Your task to perform on an android device: change the clock display to analog Image 0: 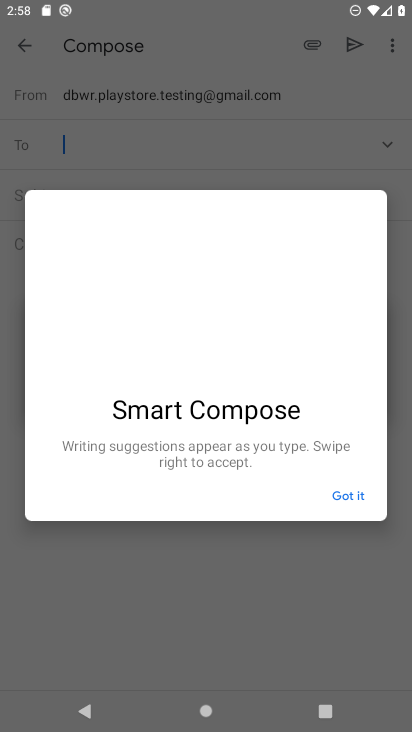
Step 0: press home button
Your task to perform on an android device: change the clock display to analog Image 1: 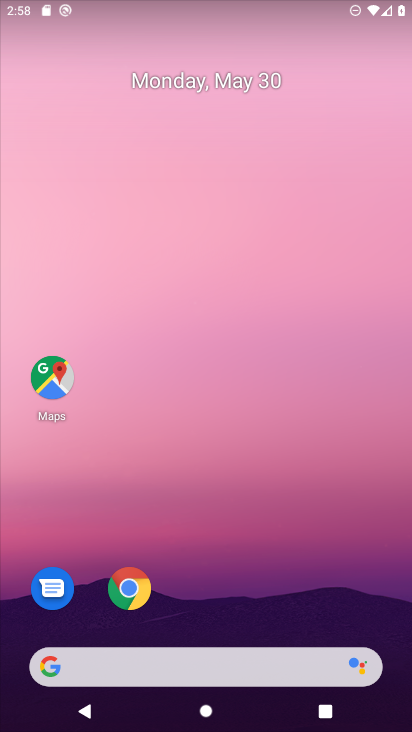
Step 1: drag from (168, 613) to (257, 286)
Your task to perform on an android device: change the clock display to analog Image 2: 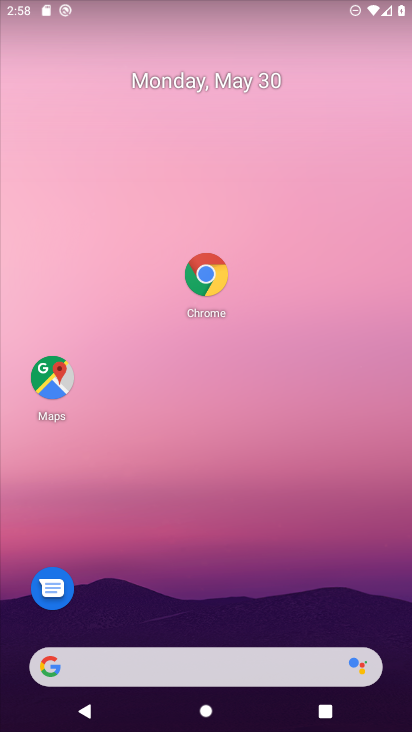
Step 2: drag from (197, 626) to (254, 240)
Your task to perform on an android device: change the clock display to analog Image 3: 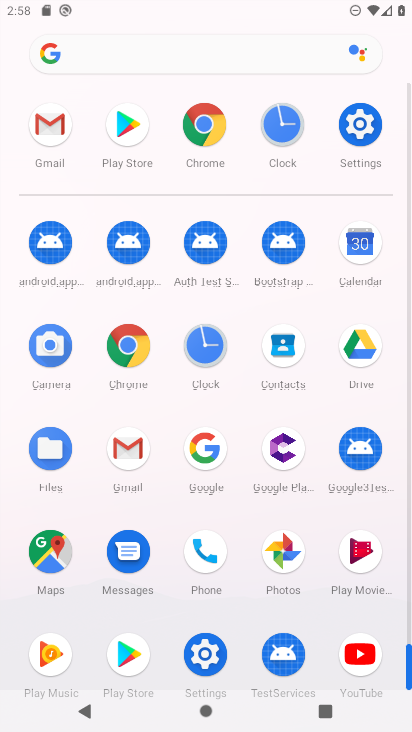
Step 3: click (287, 124)
Your task to perform on an android device: change the clock display to analog Image 4: 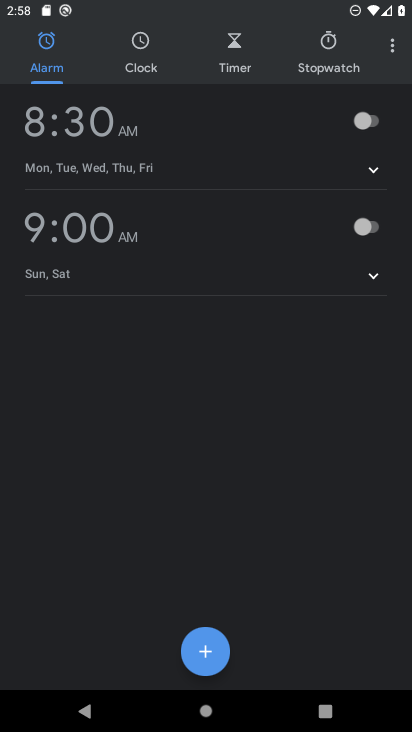
Step 4: click (401, 36)
Your task to perform on an android device: change the clock display to analog Image 5: 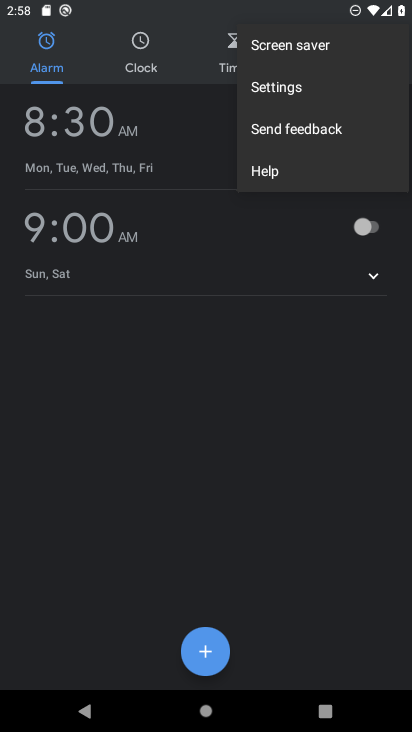
Step 5: click (266, 89)
Your task to perform on an android device: change the clock display to analog Image 6: 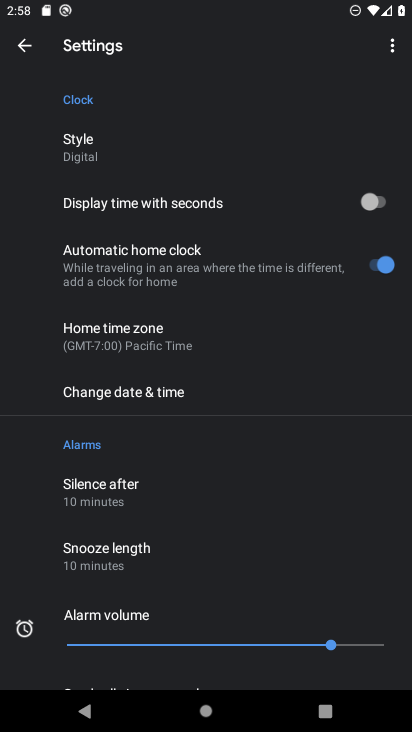
Step 6: click (98, 133)
Your task to perform on an android device: change the clock display to analog Image 7: 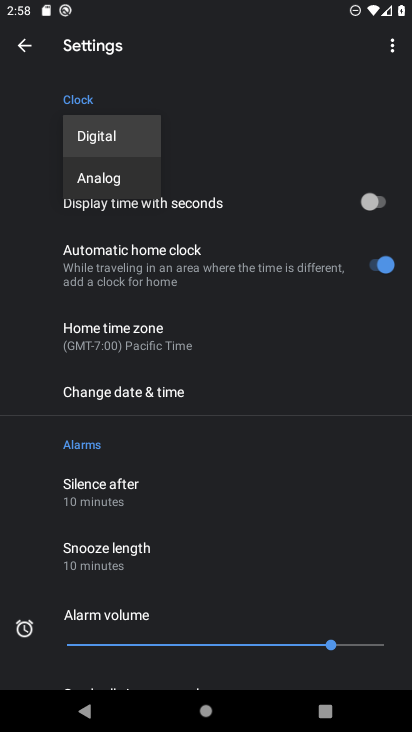
Step 7: click (106, 168)
Your task to perform on an android device: change the clock display to analog Image 8: 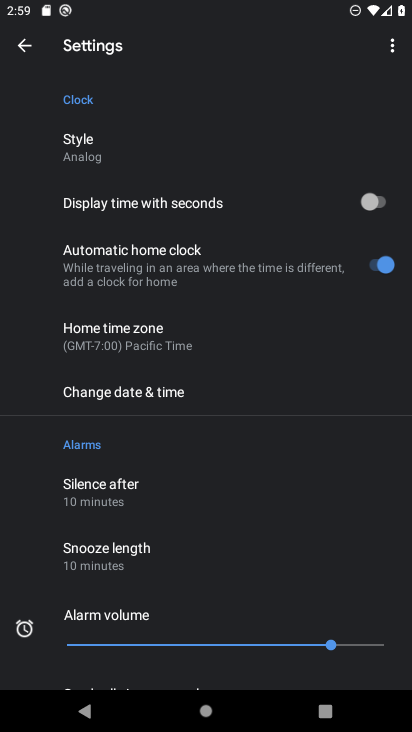
Step 8: task complete